Your task to perform on an android device: Go to Yahoo.com Image 0: 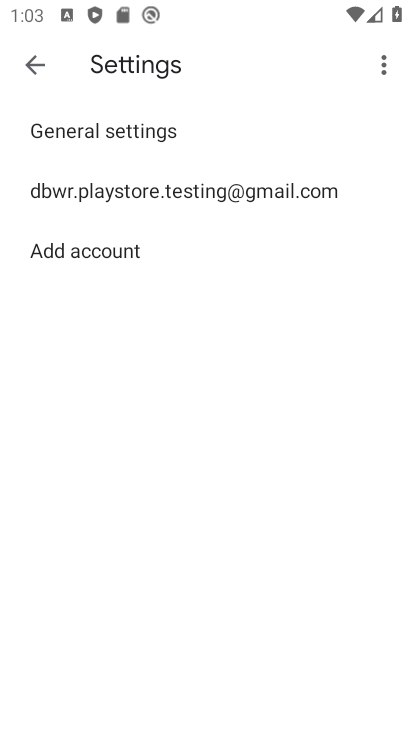
Step 0: click (359, 460)
Your task to perform on an android device: Go to Yahoo.com Image 1: 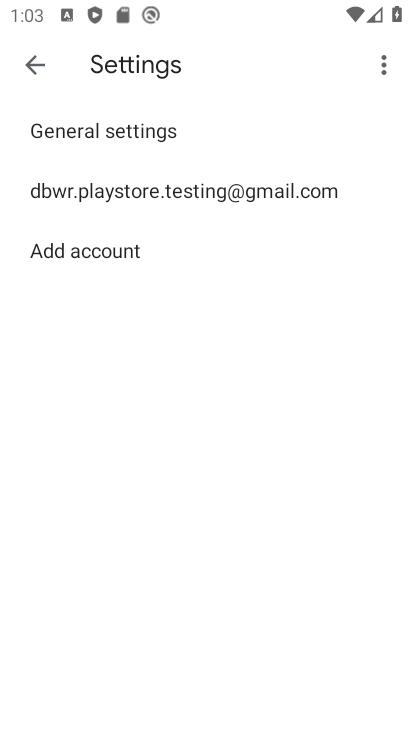
Step 1: press home button
Your task to perform on an android device: Go to Yahoo.com Image 2: 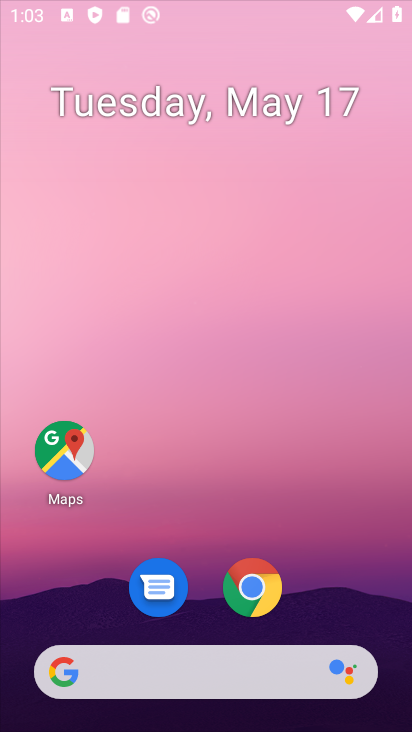
Step 2: drag from (212, 579) to (256, 60)
Your task to perform on an android device: Go to Yahoo.com Image 3: 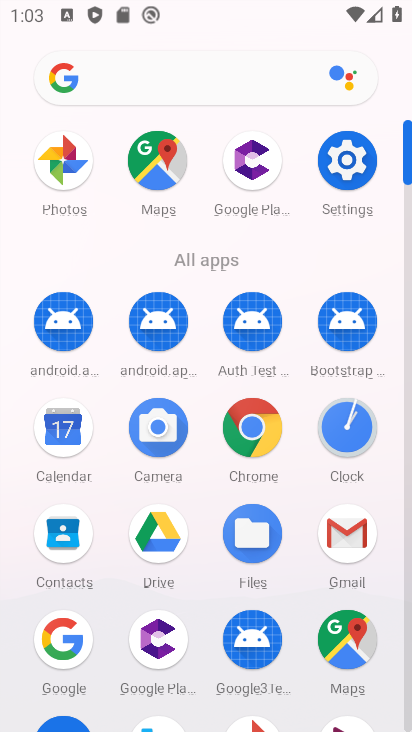
Step 3: click (184, 87)
Your task to perform on an android device: Go to Yahoo.com Image 4: 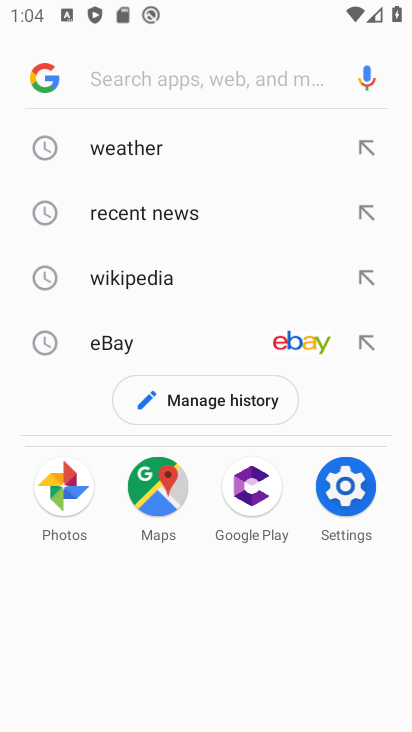
Step 4: type "yahoo"
Your task to perform on an android device: Go to Yahoo.com Image 5: 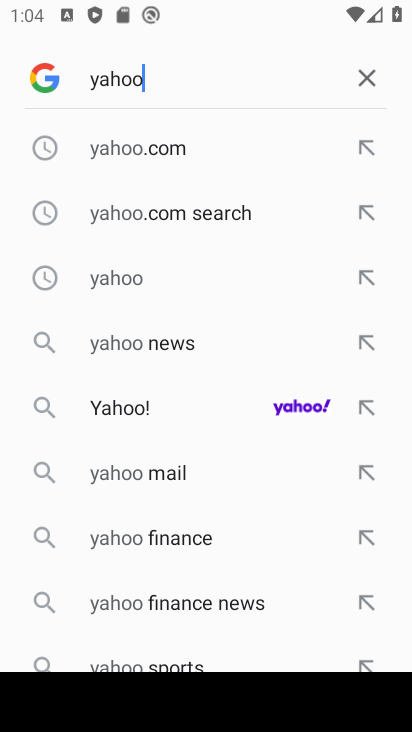
Step 5: click (136, 149)
Your task to perform on an android device: Go to Yahoo.com Image 6: 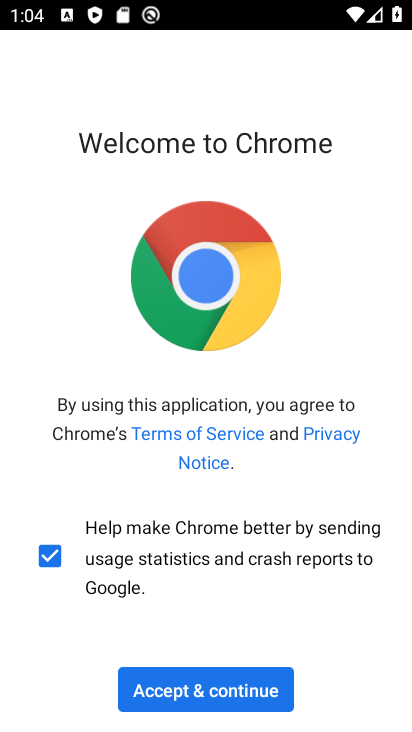
Step 6: click (169, 670)
Your task to perform on an android device: Go to Yahoo.com Image 7: 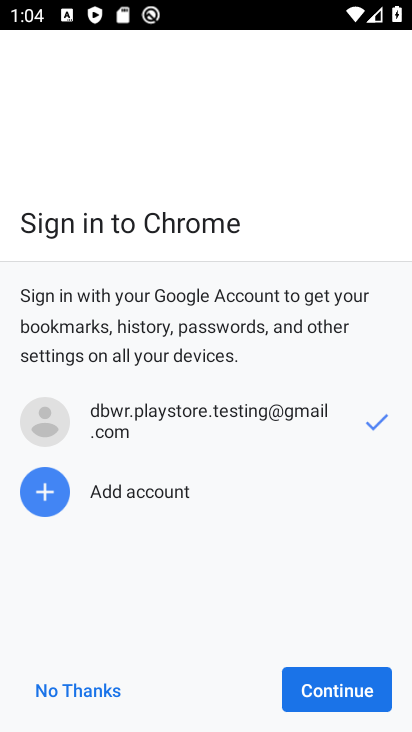
Step 7: click (347, 676)
Your task to perform on an android device: Go to Yahoo.com Image 8: 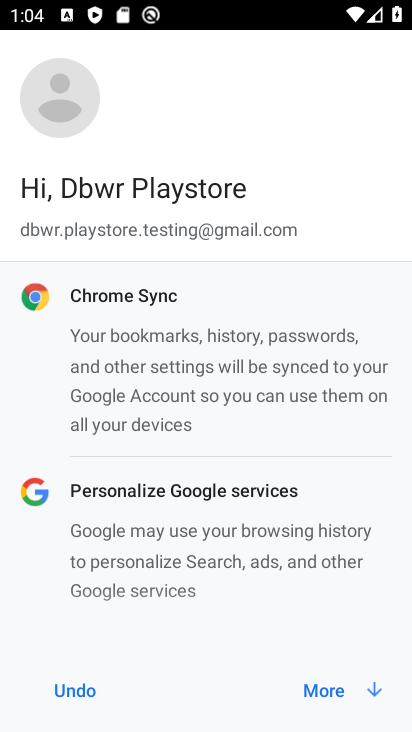
Step 8: click (327, 681)
Your task to perform on an android device: Go to Yahoo.com Image 9: 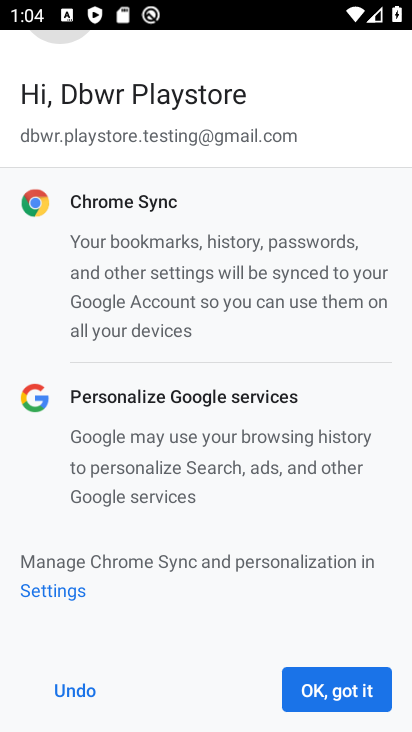
Step 9: click (333, 685)
Your task to perform on an android device: Go to Yahoo.com Image 10: 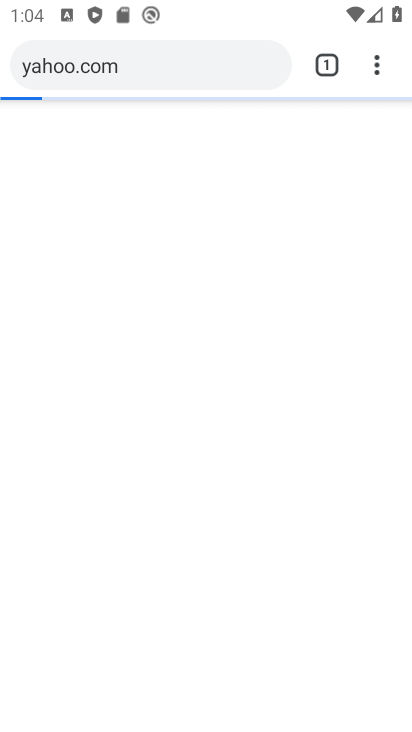
Step 10: task complete